Your task to perform on an android device: Open internet settings Image 0: 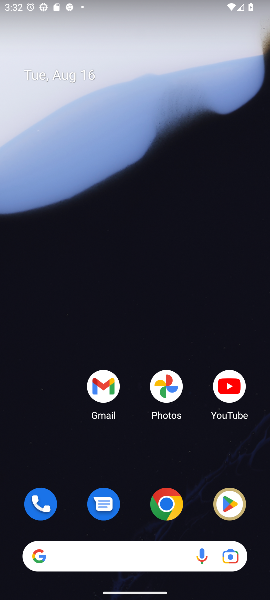
Step 0: drag from (138, 475) to (117, 195)
Your task to perform on an android device: Open internet settings Image 1: 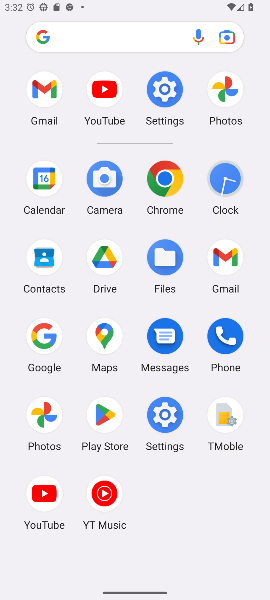
Step 1: click (163, 87)
Your task to perform on an android device: Open internet settings Image 2: 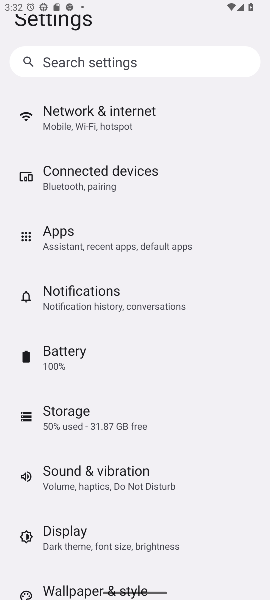
Step 2: click (103, 103)
Your task to perform on an android device: Open internet settings Image 3: 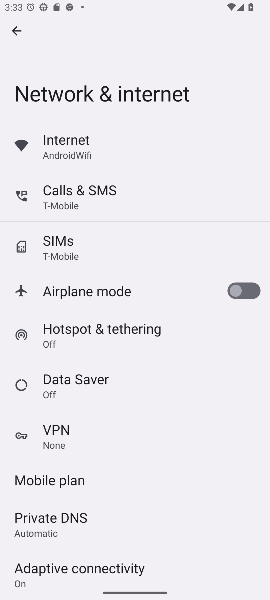
Step 3: click (60, 135)
Your task to perform on an android device: Open internet settings Image 4: 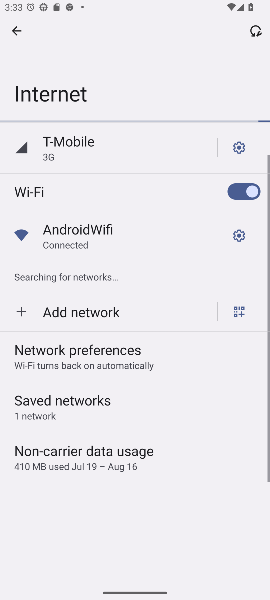
Step 4: task complete